Your task to perform on an android device: toggle notification dots Image 0: 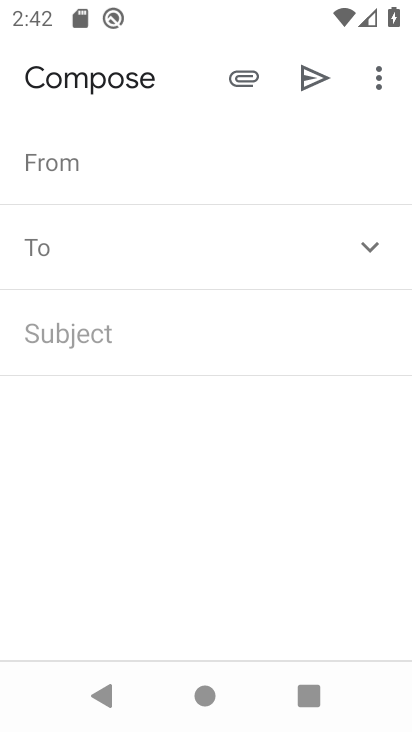
Step 0: click (230, 608)
Your task to perform on an android device: toggle notification dots Image 1: 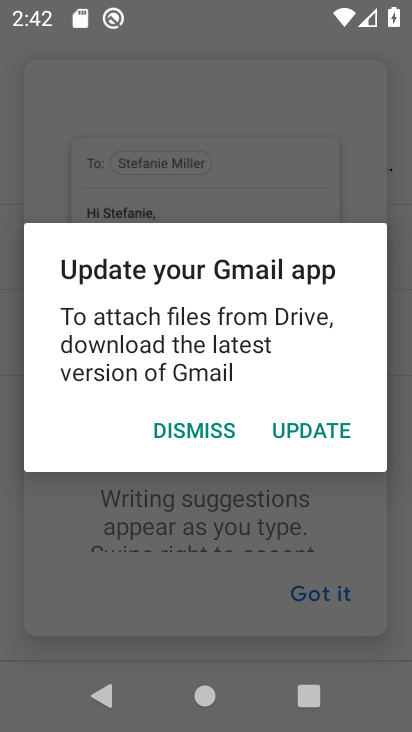
Step 1: press home button
Your task to perform on an android device: toggle notification dots Image 2: 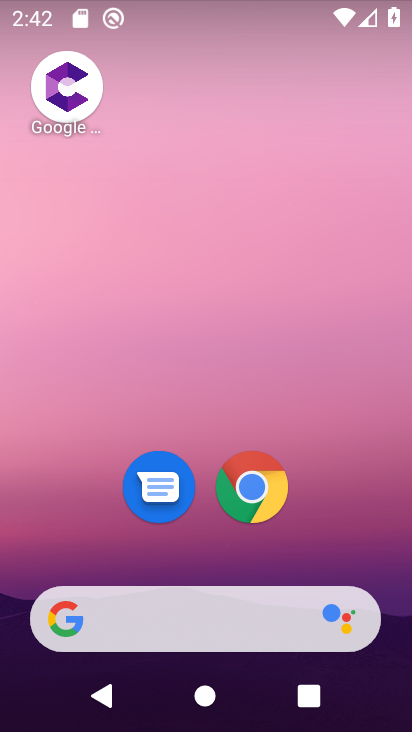
Step 2: drag from (262, 697) to (211, 25)
Your task to perform on an android device: toggle notification dots Image 3: 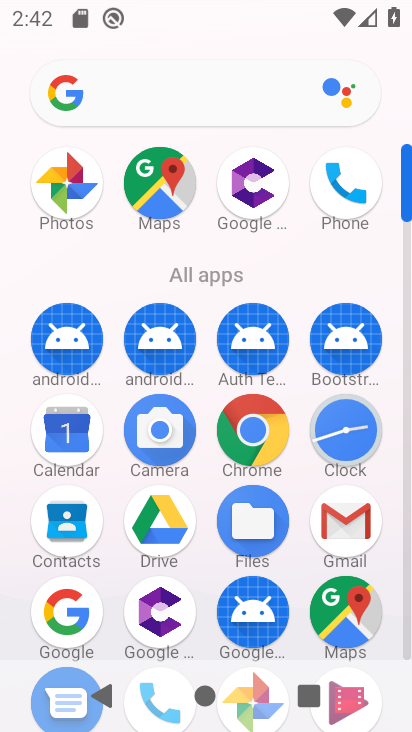
Step 3: drag from (241, 568) to (235, 102)
Your task to perform on an android device: toggle notification dots Image 4: 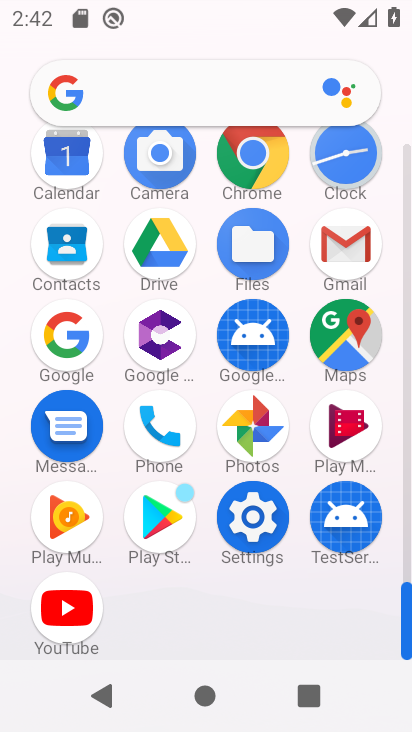
Step 4: click (257, 530)
Your task to perform on an android device: toggle notification dots Image 5: 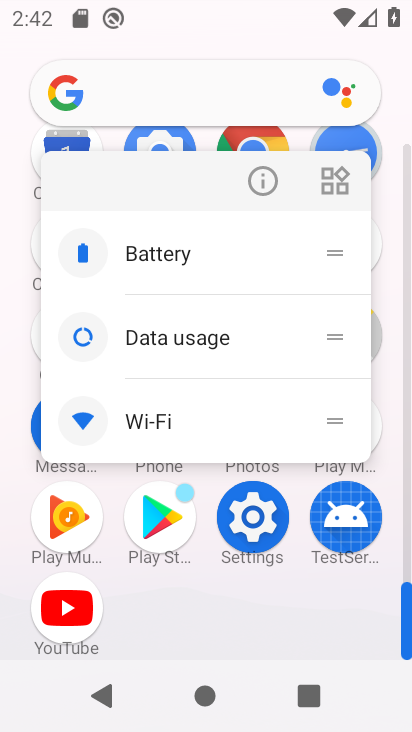
Step 5: click (257, 530)
Your task to perform on an android device: toggle notification dots Image 6: 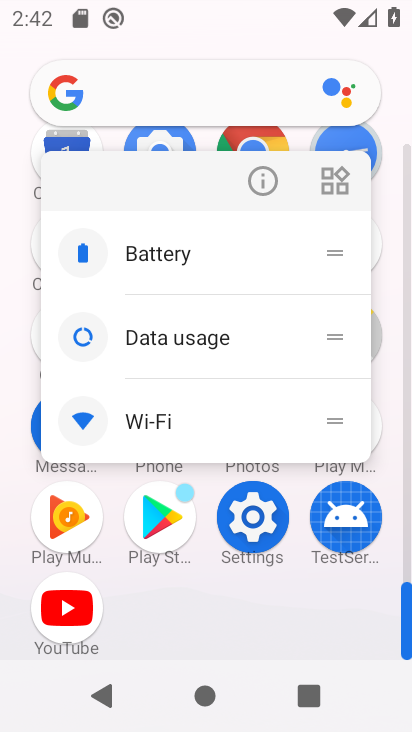
Step 6: click (257, 530)
Your task to perform on an android device: toggle notification dots Image 7: 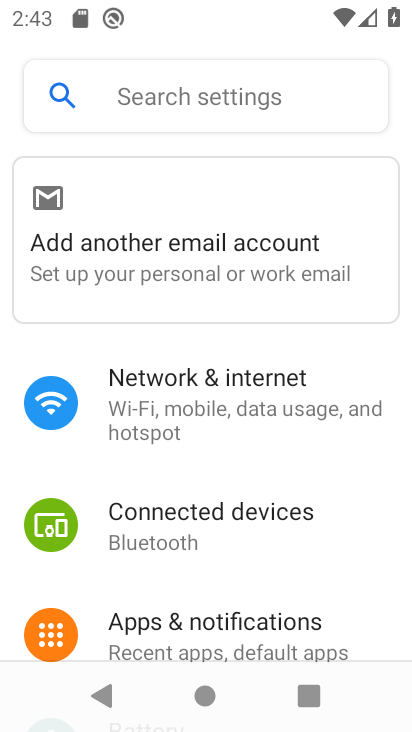
Step 7: click (275, 629)
Your task to perform on an android device: toggle notification dots Image 8: 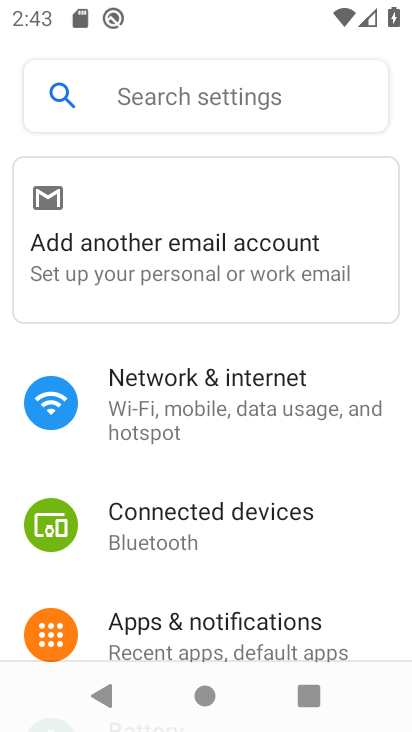
Step 8: click (275, 629)
Your task to perform on an android device: toggle notification dots Image 9: 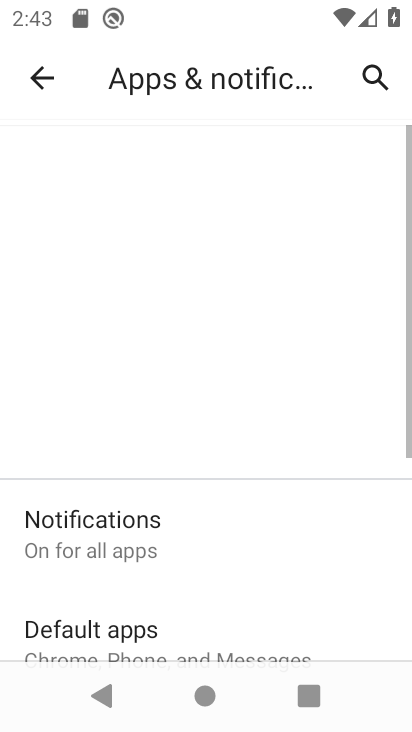
Step 9: drag from (250, 408) to (260, 7)
Your task to perform on an android device: toggle notification dots Image 10: 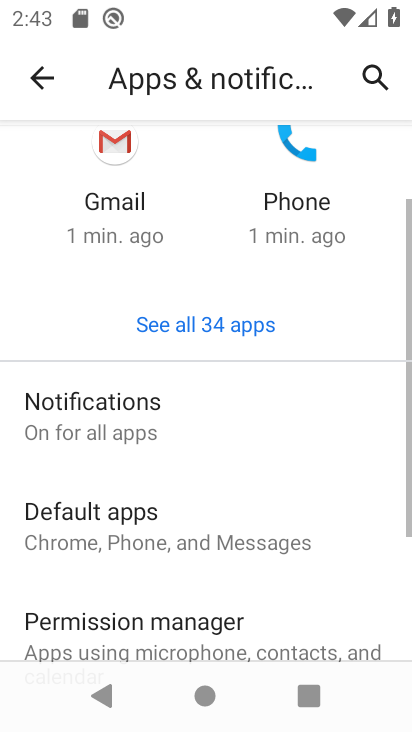
Step 10: click (189, 404)
Your task to perform on an android device: toggle notification dots Image 11: 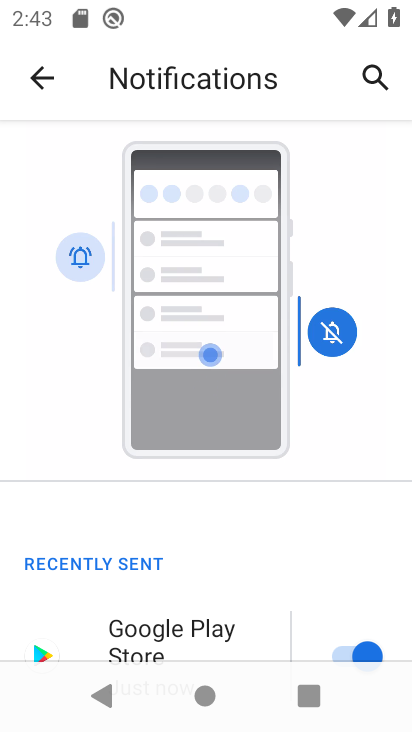
Step 11: drag from (305, 565) to (224, 1)
Your task to perform on an android device: toggle notification dots Image 12: 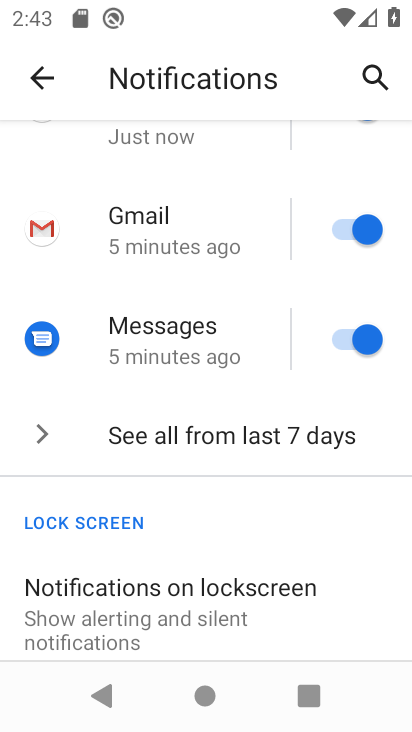
Step 12: drag from (290, 610) to (306, 5)
Your task to perform on an android device: toggle notification dots Image 13: 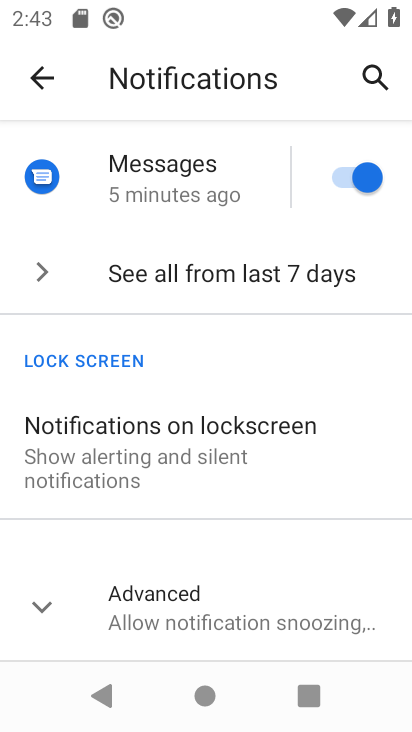
Step 13: click (304, 609)
Your task to perform on an android device: toggle notification dots Image 14: 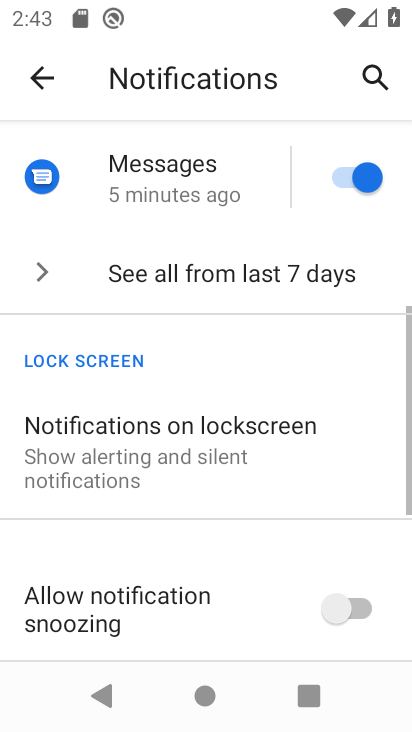
Step 14: drag from (228, 575) to (251, 81)
Your task to perform on an android device: toggle notification dots Image 15: 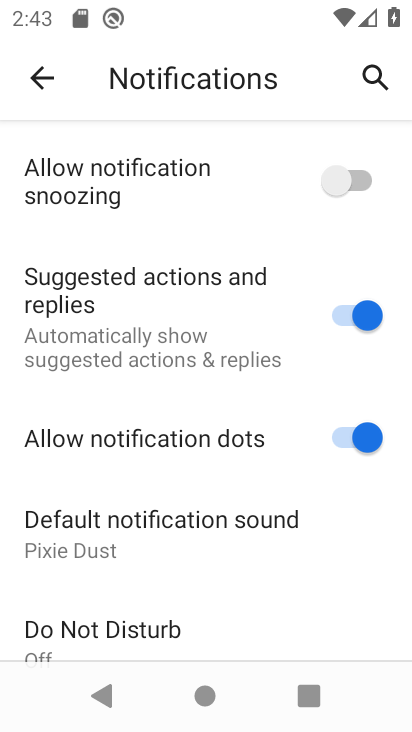
Step 15: click (370, 437)
Your task to perform on an android device: toggle notification dots Image 16: 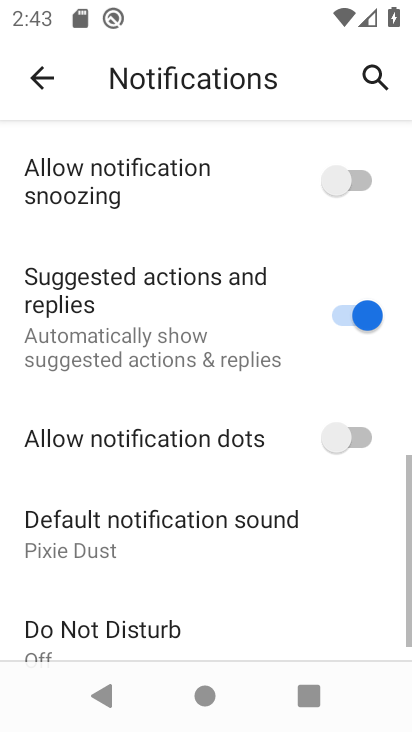
Step 16: task complete